Your task to perform on an android device: turn off airplane mode Image 0: 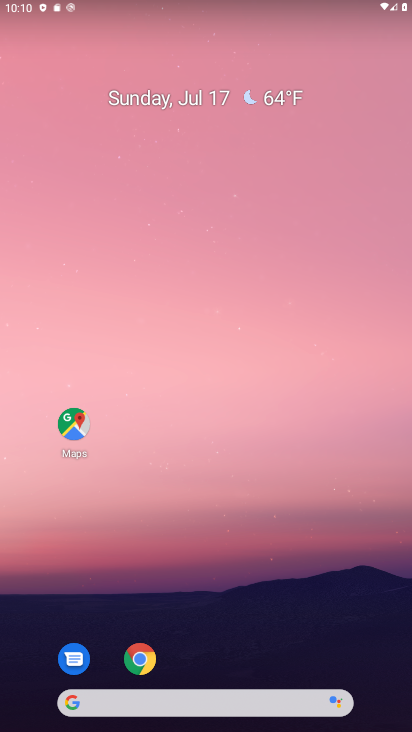
Step 0: drag from (178, 712) to (48, 11)
Your task to perform on an android device: turn off airplane mode Image 1: 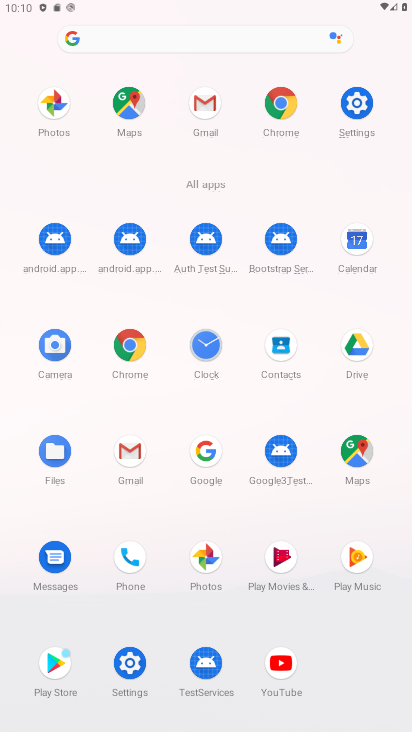
Step 1: click (355, 107)
Your task to perform on an android device: turn off airplane mode Image 2: 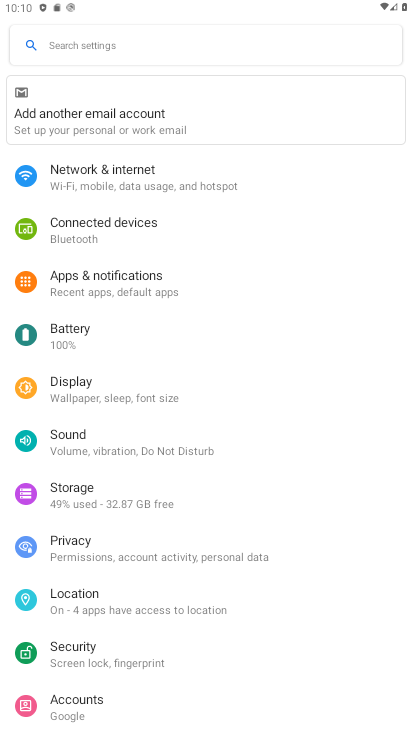
Step 2: click (130, 178)
Your task to perform on an android device: turn off airplane mode Image 3: 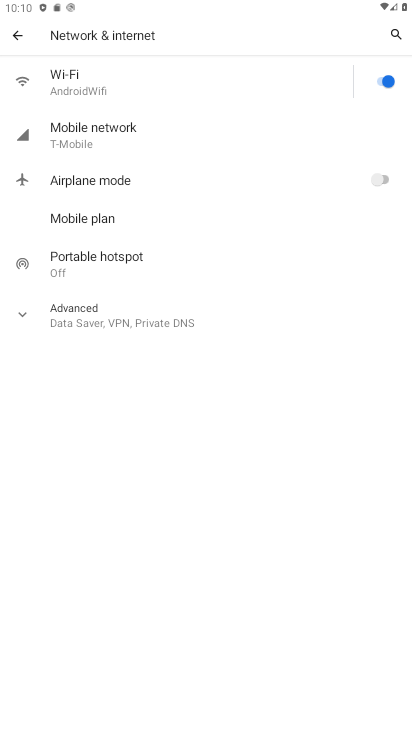
Step 3: task complete